Your task to perform on an android device: What's the weather today? Image 0: 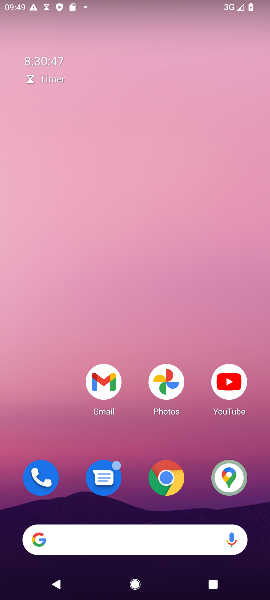
Step 0: drag from (197, 358) to (155, 37)
Your task to perform on an android device: What's the weather today? Image 1: 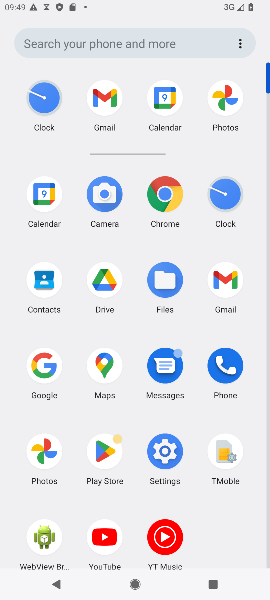
Step 1: click (163, 201)
Your task to perform on an android device: What's the weather today? Image 2: 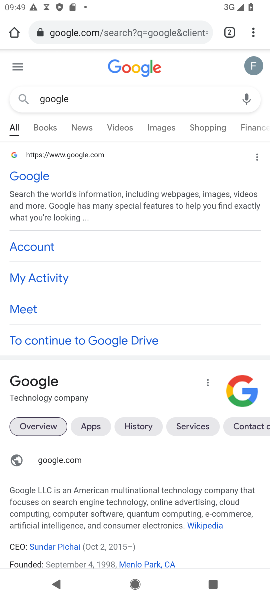
Step 2: click (172, 39)
Your task to perform on an android device: What's the weather today? Image 3: 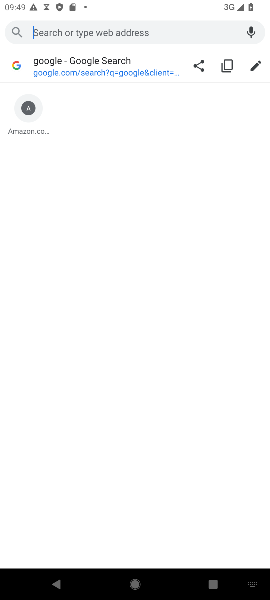
Step 3: type "What's the weather today?"
Your task to perform on an android device: What's the weather today? Image 4: 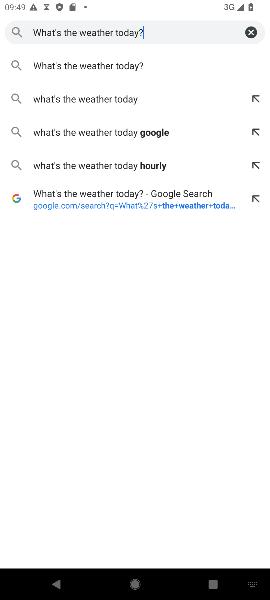
Step 4: click (154, 64)
Your task to perform on an android device: What's the weather today? Image 5: 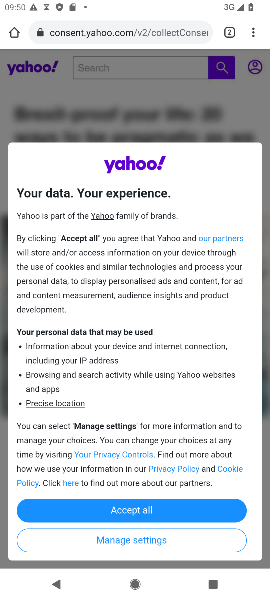
Step 5: click (151, 511)
Your task to perform on an android device: What's the weather today? Image 6: 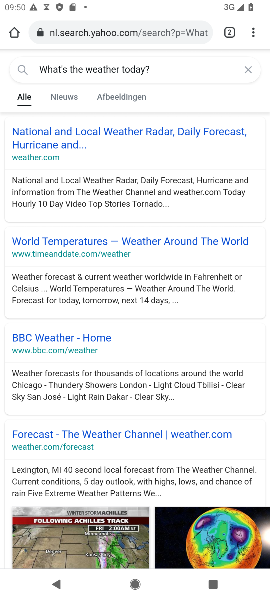
Step 6: click (181, 142)
Your task to perform on an android device: What's the weather today? Image 7: 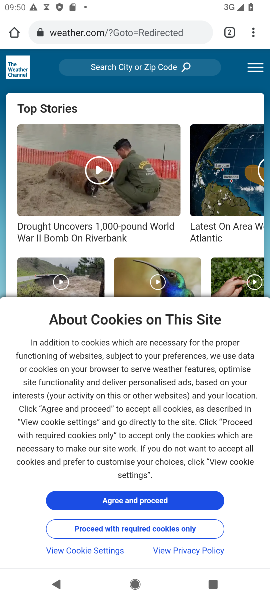
Step 7: click (204, 497)
Your task to perform on an android device: What's the weather today? Image 8: 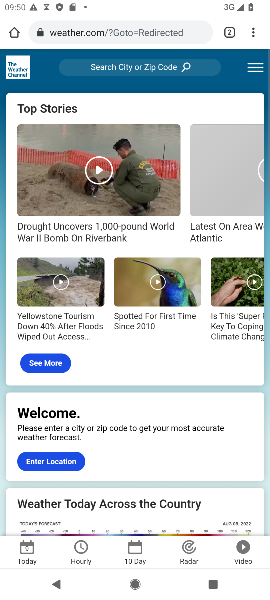
Step 8: task complete